Your task to perform on an android device: delete browsing data in the chrome app Image 0: 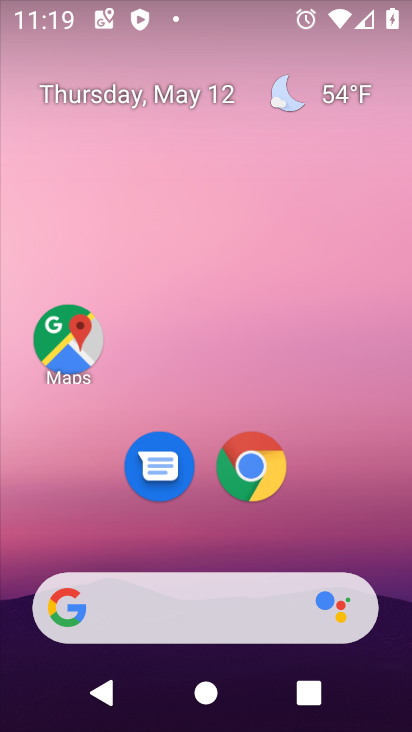
Step 0: drag from (380, 496) to (343, 120)
Your task to perform on an android device: delete browsing data in the chrome app Image 1: 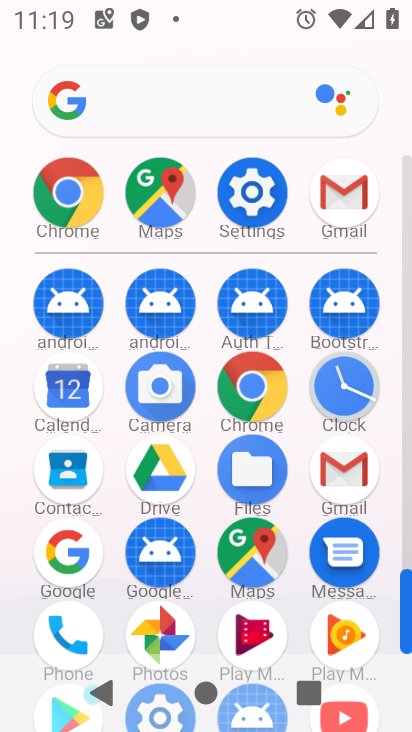
Step 1: click (229, 397)
Your task to perform on an android device: delete browsing data in the chrome app Image 2: 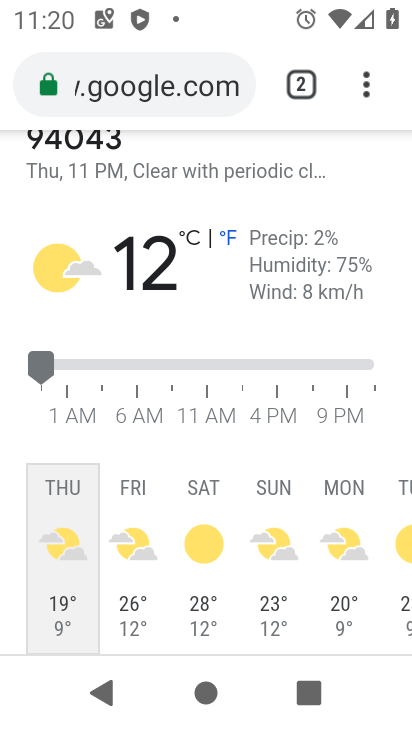
Step 2: drag from (364, 94) to (187, 484)
Your task to perform on an android device: delete browsing data in the chrome app Image 3: 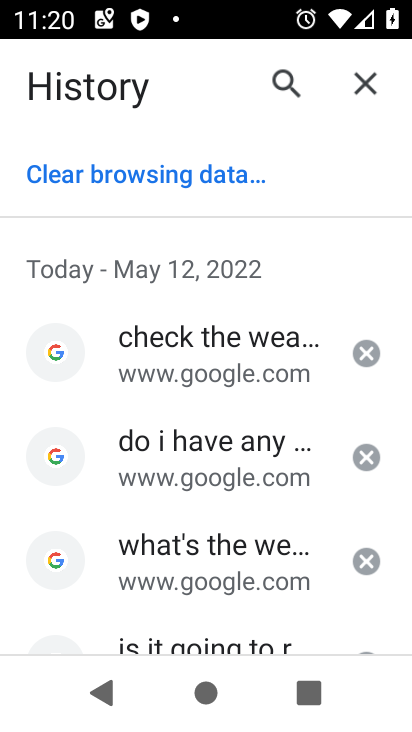
Step 3: click (197, 183)
Your task to perform on an android device: delete browsing data in the chrome app Image 4: 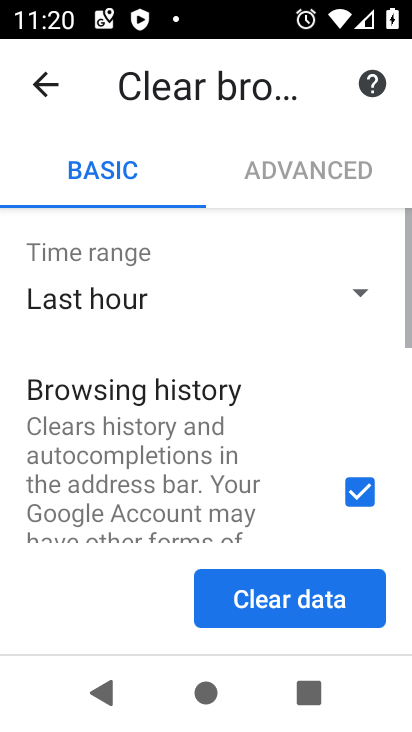
Step 4: click (245, 601)
Your task to perform on an android device: delete browsing data in the chrome app Image 5: 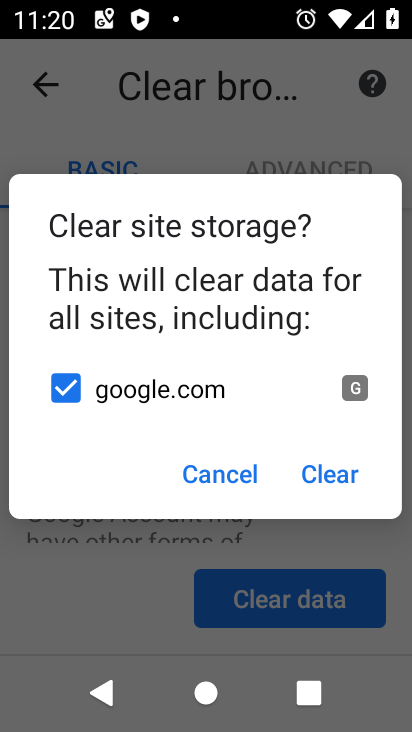
Step 5: click (327, 477)
Your task to perform on an android device: delete browsing data in the chrome app Image 6: 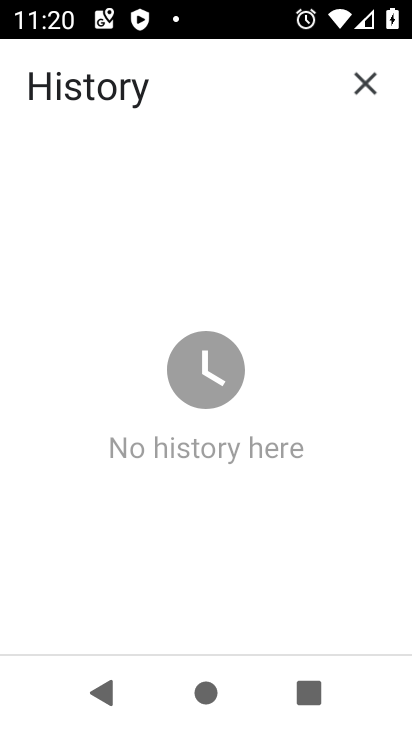
Step 6: task complete